Your task to perform on an android device: change timer sound Image 0: 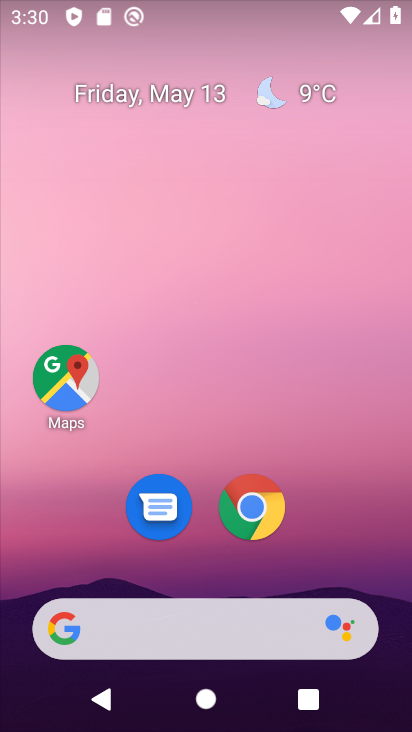
Step 0: drag from (349, 505) to (259, 53)
Your task to perform on an android device: change timer sound Image 1: 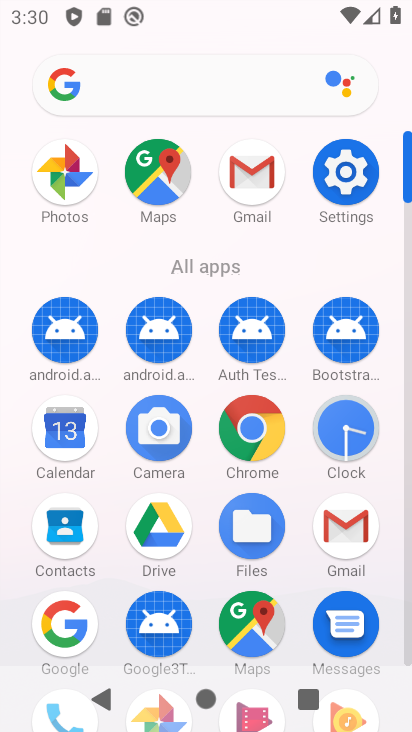
Step 1: click (361, 419)
Your task to perform on an android device: change timer sound Image 2: 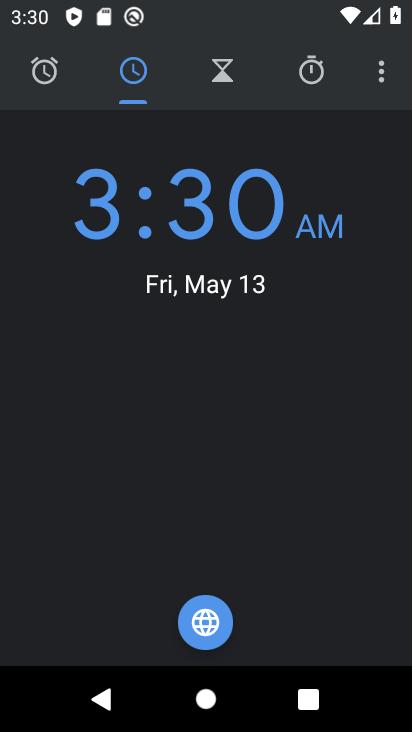
Step 2: click (379, 83)
Your task to perform on an android device: change timer sound Image 3: 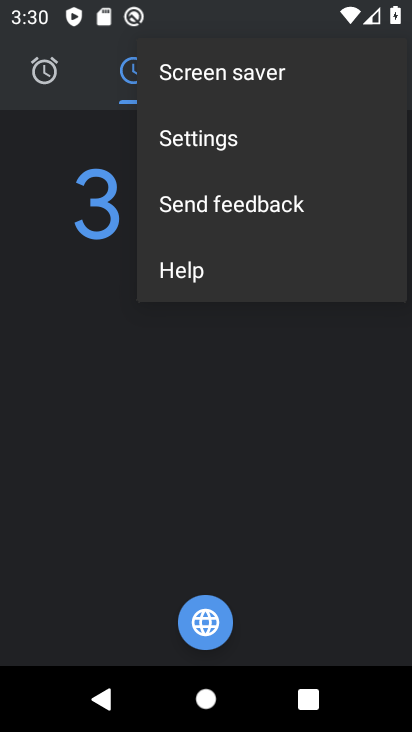
Step 3: click (210, 157)
Your task to perform on an android device: change timer sound Image 4: 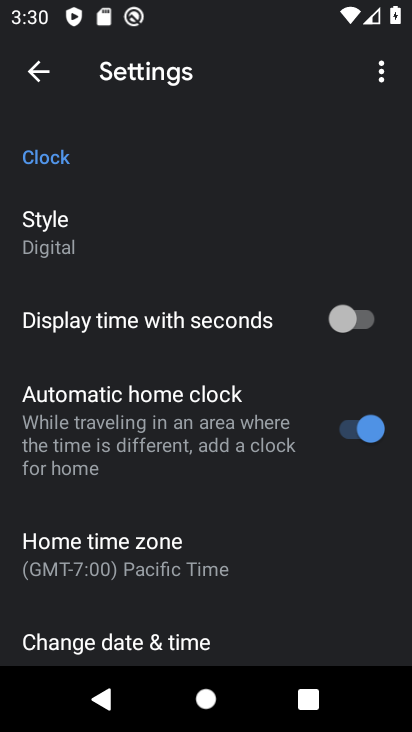
Step 4: drag from (130, 572) to (91, 212)
Your task to perform on an android device: change timer sound Image 5: 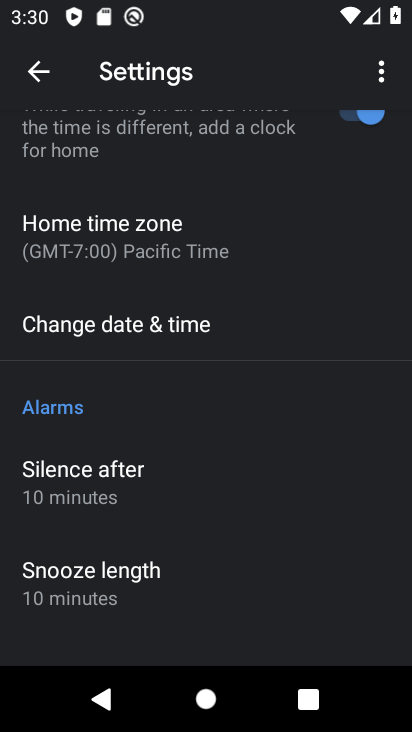
Step 5: drag from (161, 538) to (156, 199)
Your task to perform on an android device: change timer sound Image 6: 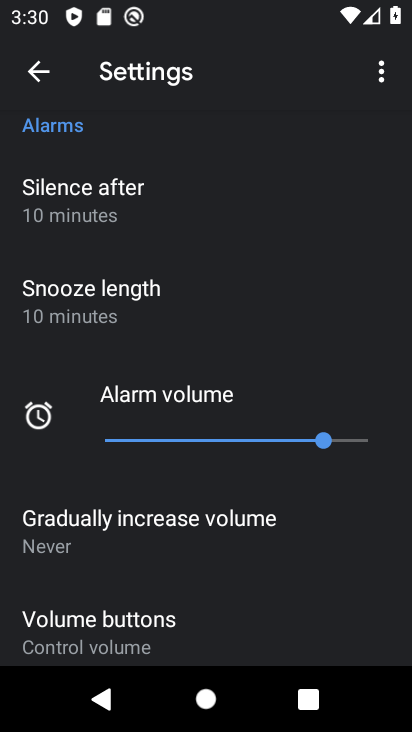
Step 6: drag from (193, 558) to (188, 188)
Your task to perform on an android device: change timer sound Image 7: 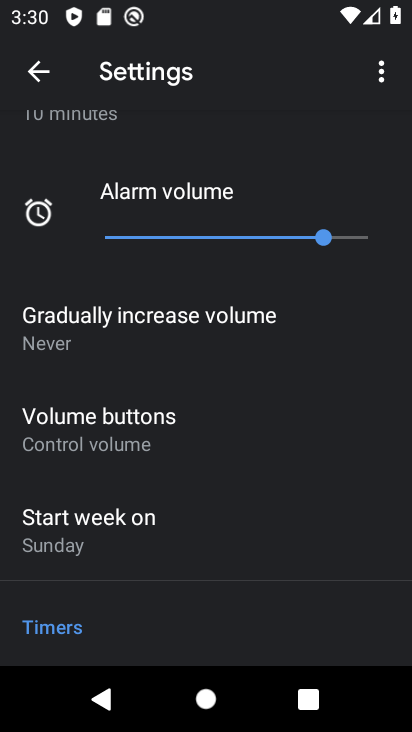
Step 7: drag from (137, 474) to (125, 154)
Your task to perform on an android device: change timer sound Image 8: 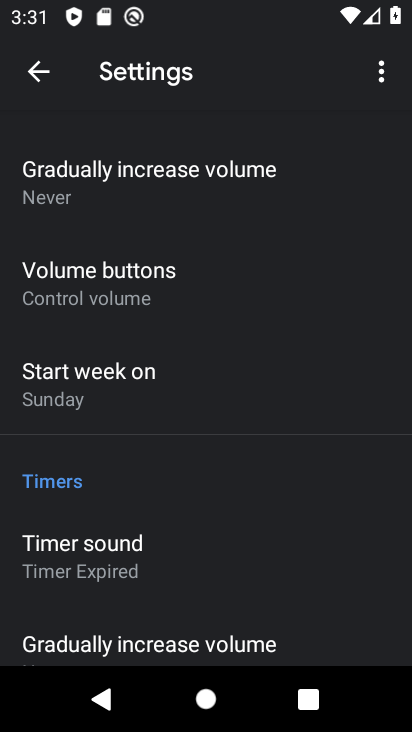
Step 8: click (102, 595)
Your task to perform on an android device: change timer sound Image 9: 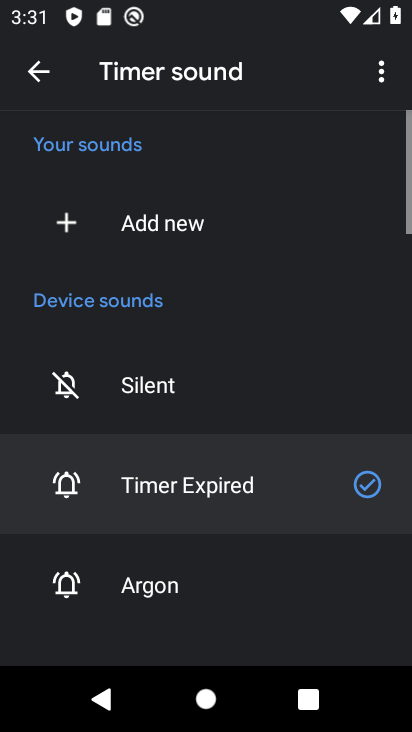
Step 9: click (112, 401)
Your task to perform on an android device: change timer sound Image 10: 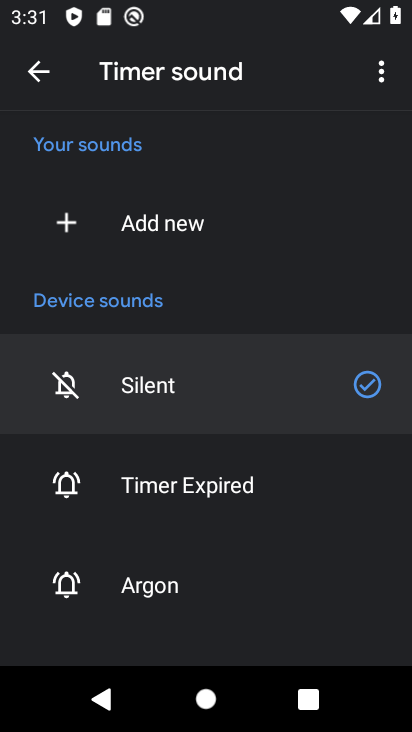
Step 10: task complete